Your task to perform on an android device: Search for seafood restaurants on Google Maps Image 0: 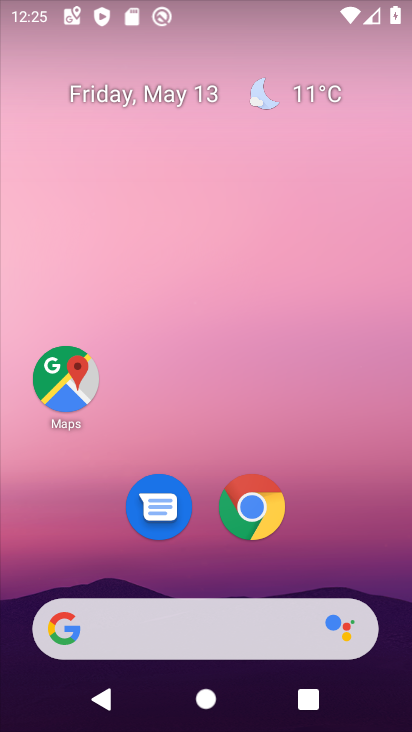
Step 0: drag from (193, 580) to (128, 3)
Your task to perform on an android device: Search for seafood restaurants on Google Maps Image 1: 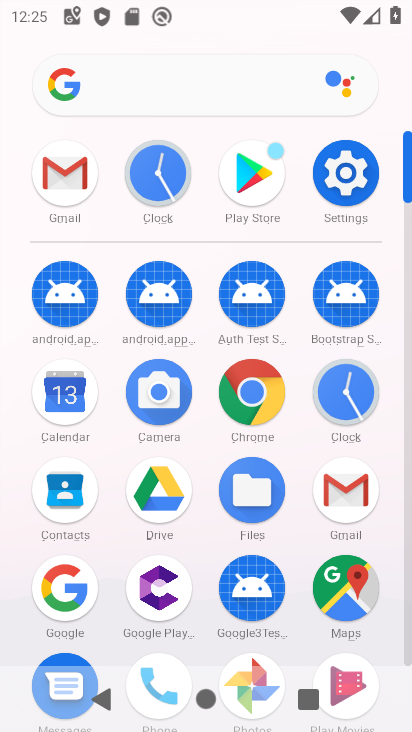
Step 1: click (359, 606)
Your task to perform on an android device: Search for seafood restaurants on Google Maps Image 2: 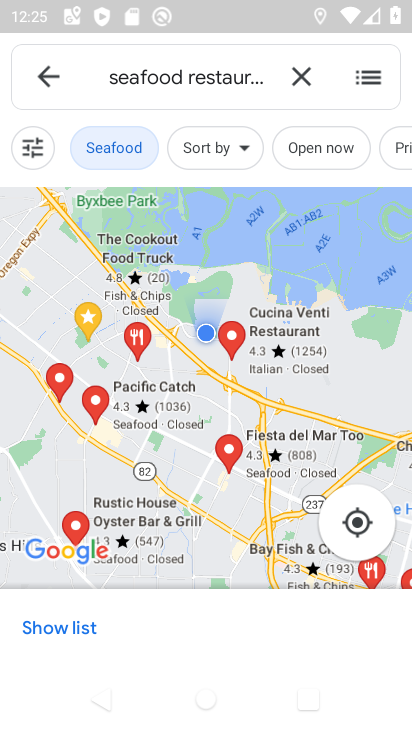
Step 2: task complete